Your task to perform on an android device: What's the weather going to be this weekend? Image 0: 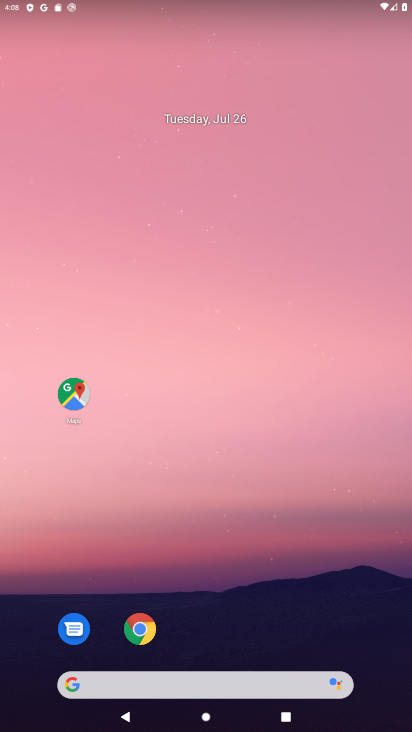
Step 0: click (229, 678)
Your task to perform on an android device: What's the weather going to be this weekend? Image 1: 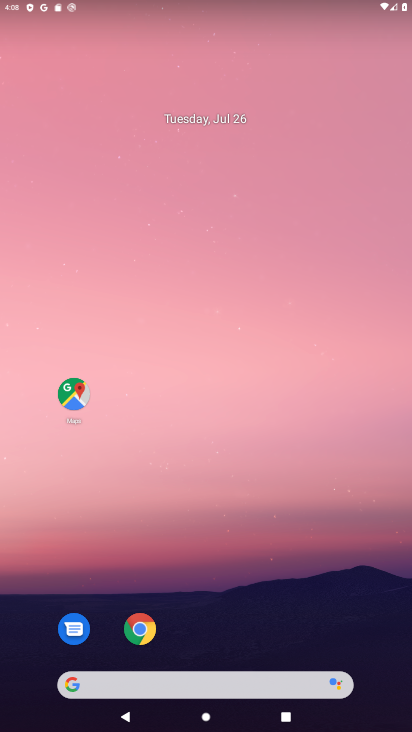
Step 1: click (205, 691)
Your task to perform on an android device: What's the weather going to be this weekend? Image 2: 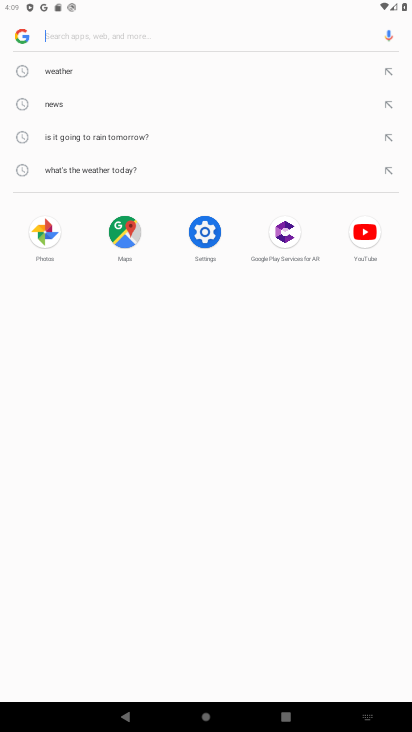
Step 2: type "what's the weather going to be this weekend?"
Your task to perform on an android device: What's the weather going to be this weekend? Image 3: 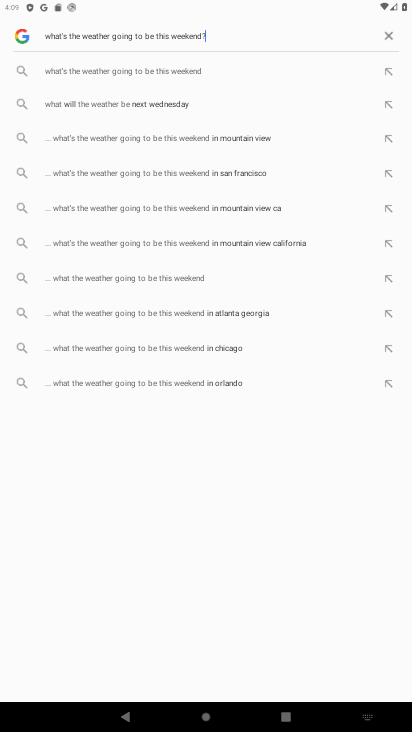
Step 3: click (166, 74)
Your task to perform on an android device: What's the weather going to be this weekend? Image 4: 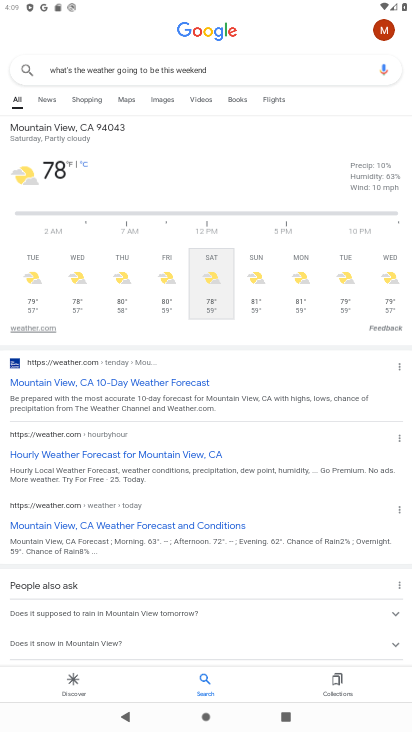
Step 4: task complete